Your task to perform on an android device: What's the weather going to be this weekend? Image 0: 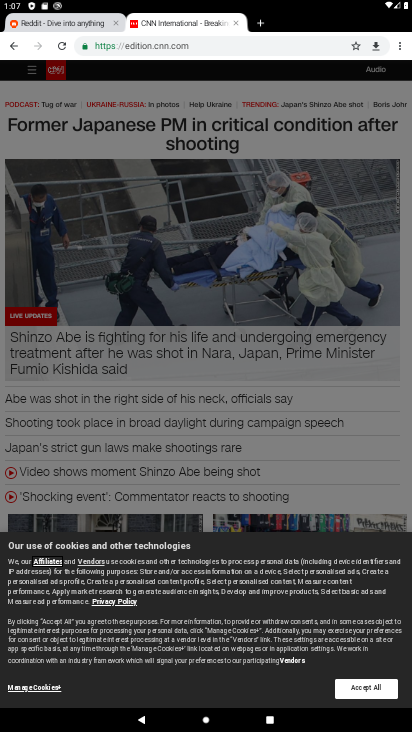
Step 0: press home button
Your task to perform on an android device: What's the weather going to be this weekend? Image 1: 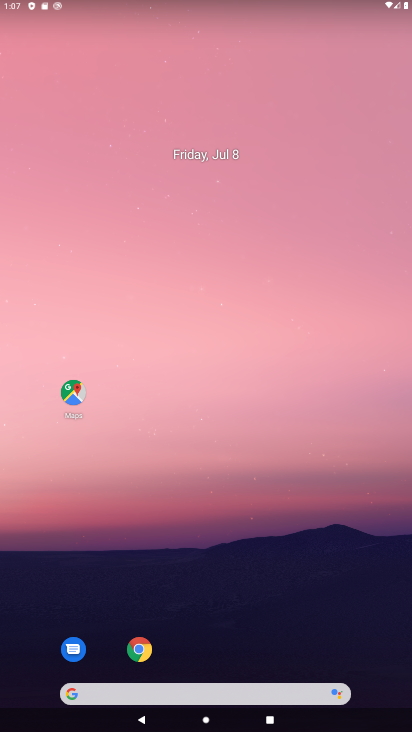
Step 1: drag from (271, 532) to (205, 49)
Your task to perform on an android device: What's the weather going to be this weekend? Image 2: 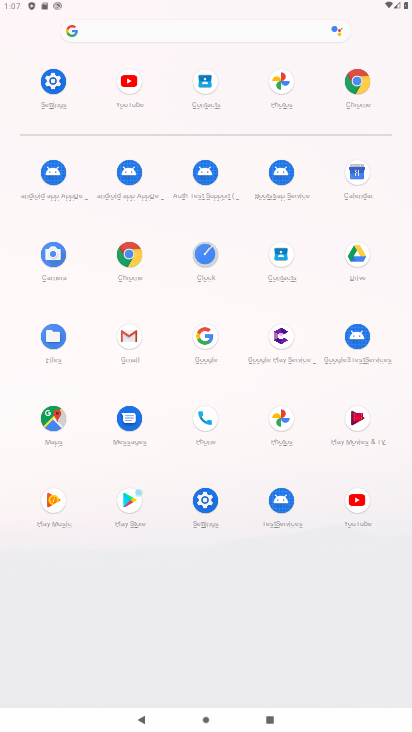
Step 2: click (131, 250)
Your task to perform on an android device: What's the weather going to be this weekend? Image 3: 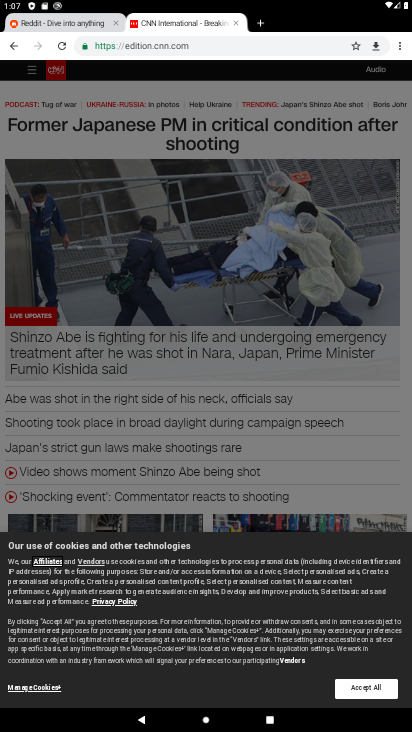
Step 3: click (195, 55)
Your task to perform on an android device: What's the weather going to be this weekend? Image 4: 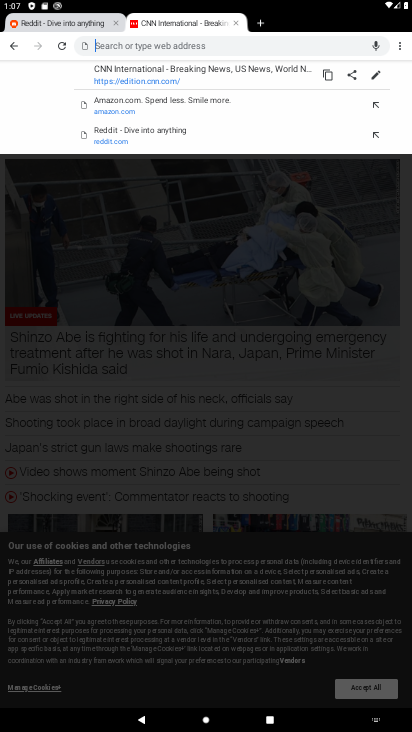
Step 4: type "weather"
Your task to perform on an android device: What's the weather going to be this weekend? Image 5: 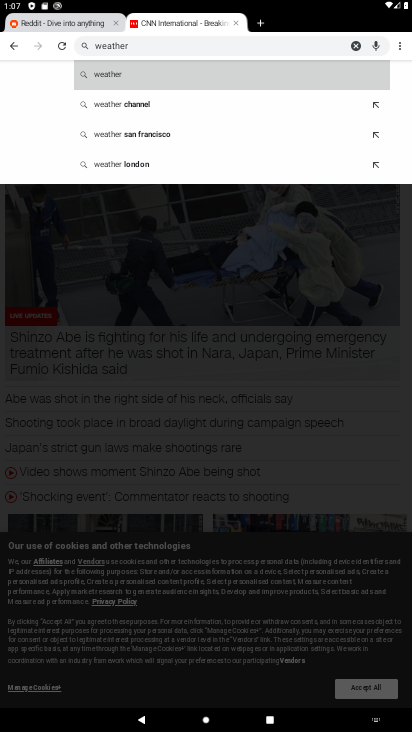
Step 5: click (108, 77)
Your task to perform on an android device: What's the weather going to be this weekend? Image 6: 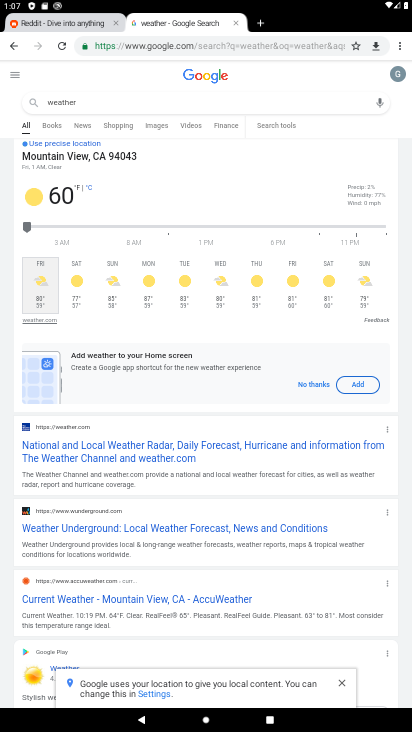
Step 6: click (80, 278)
Your task to perform on an android device: What's the weather going to be this weekend? Image 7: 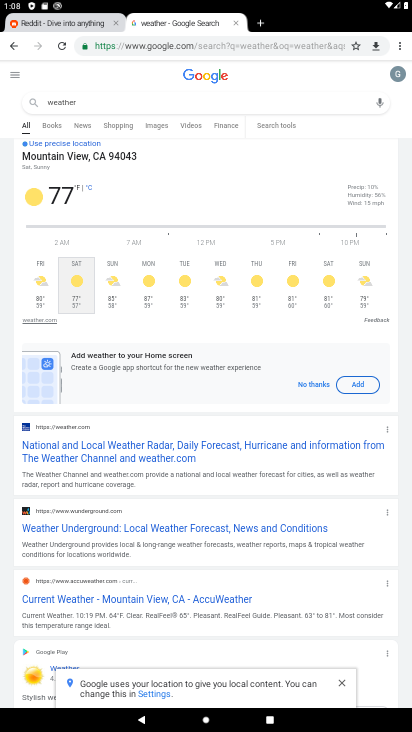
Step 7: task complete